Your task to perform on an android device: Go to ESPN.com Image 0: 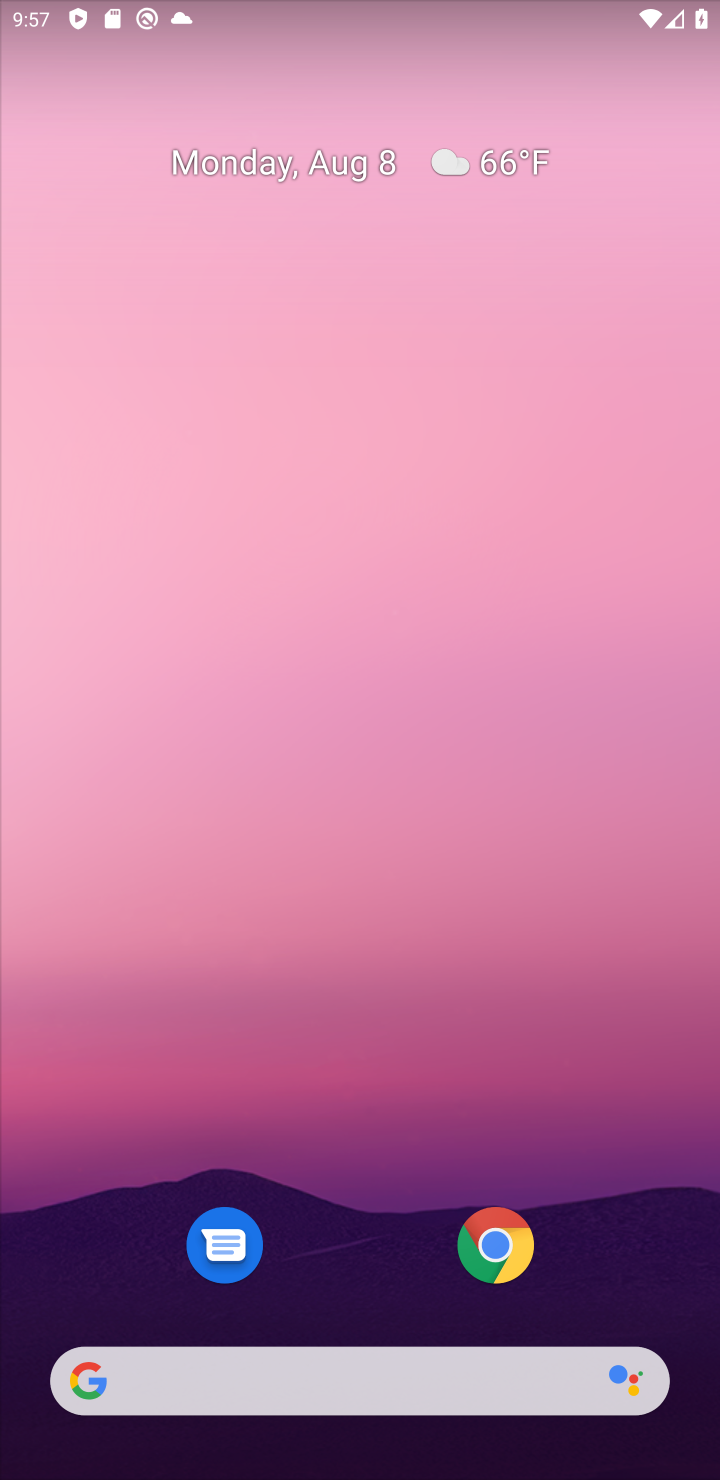
Step 0: click (490, 1249)
Your task to perform on an android device: Go to ESPN.com Image 1: 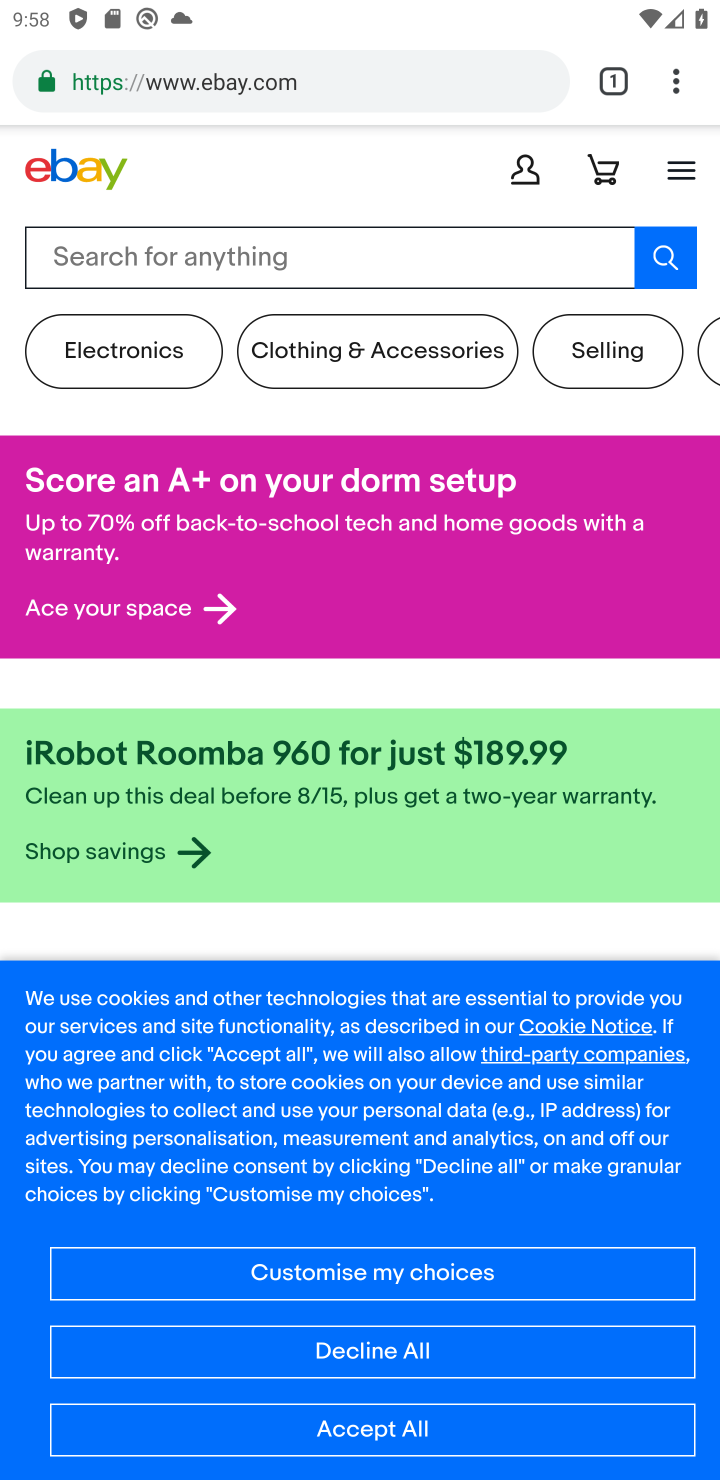
Step 1: click (680, 84)
Your task to perform on an android device: Go to ESPN.com Image 2: 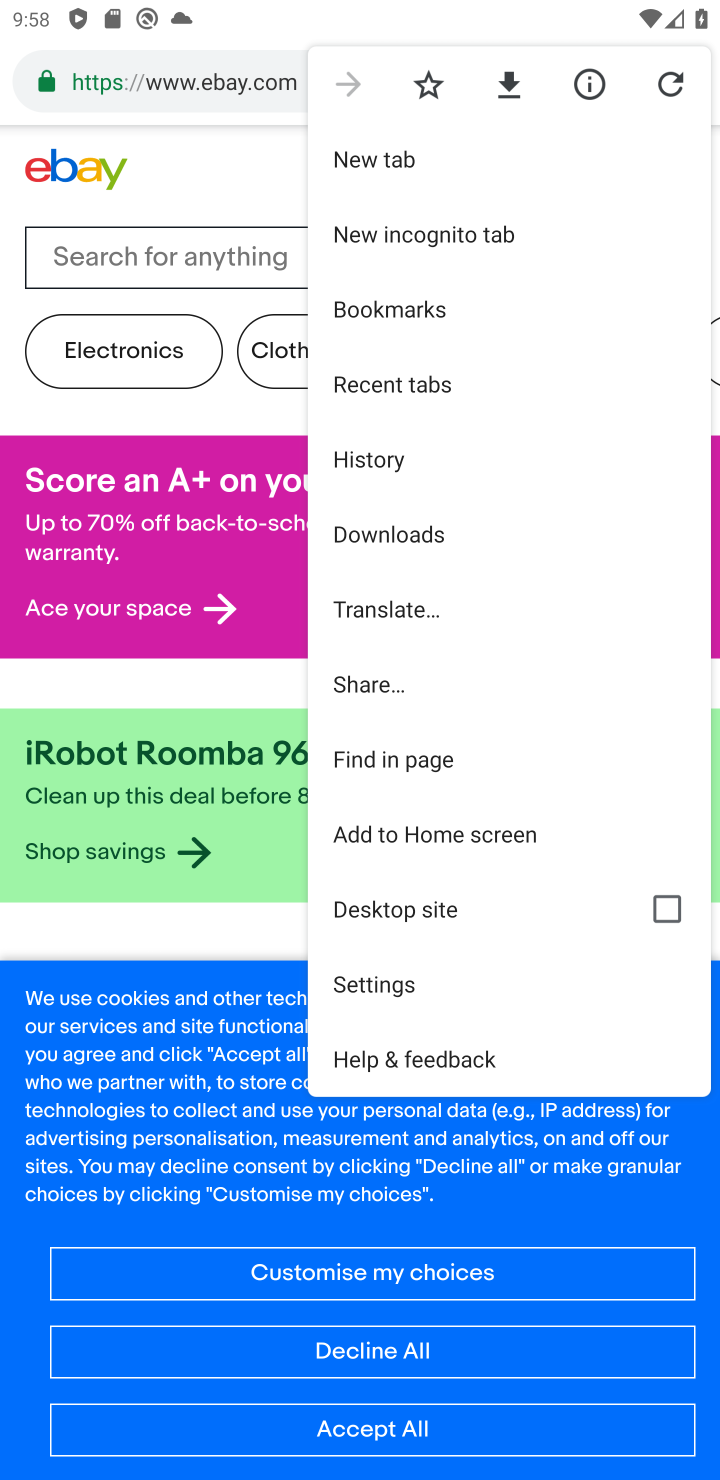
Step 2: click (387, 164)
Your task to perform on an android device: Go to ESPN.com Image 3: 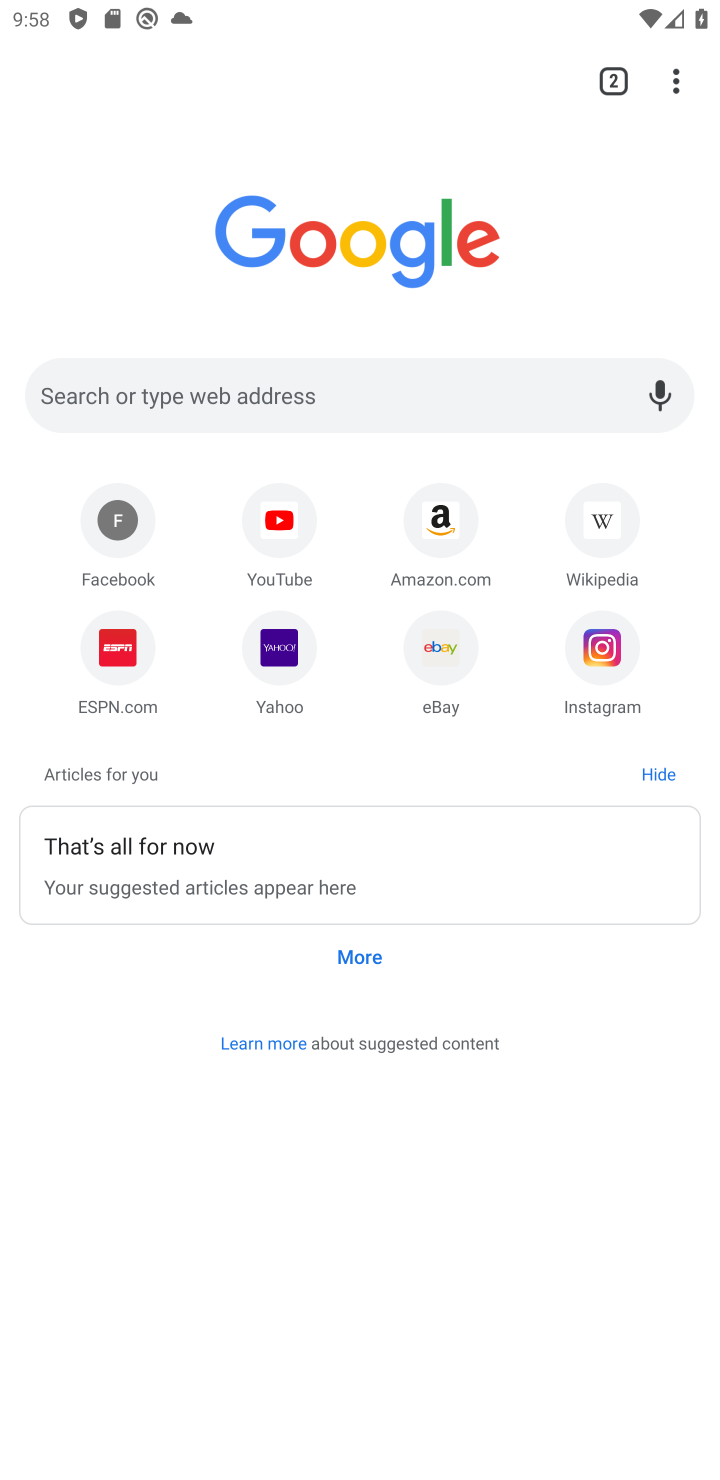
Step 3: click (100, 642)
Your task to perform on an android device: Go to ESPN.com Image 4: 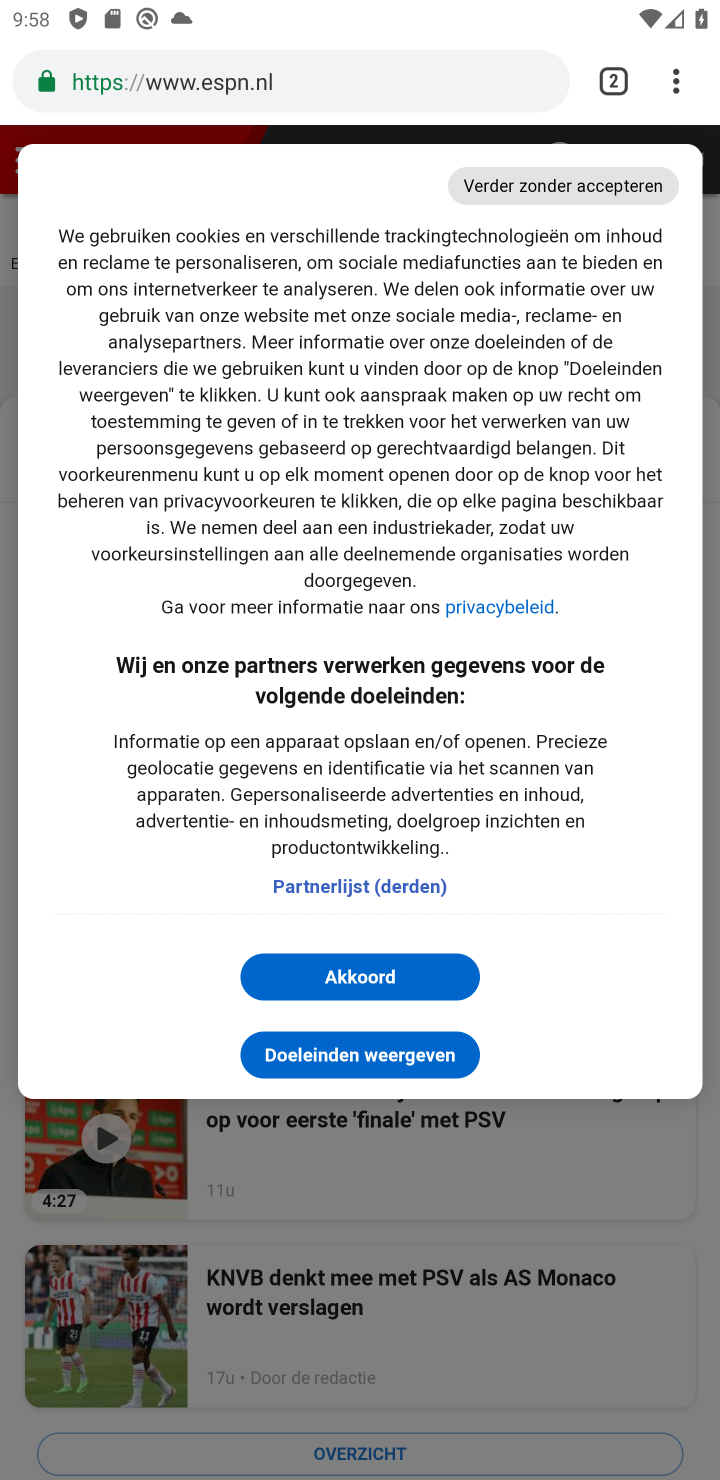
Step 4: click (360, 970)
Your task to perform on an android device: Go to ESPN.com Image 5: 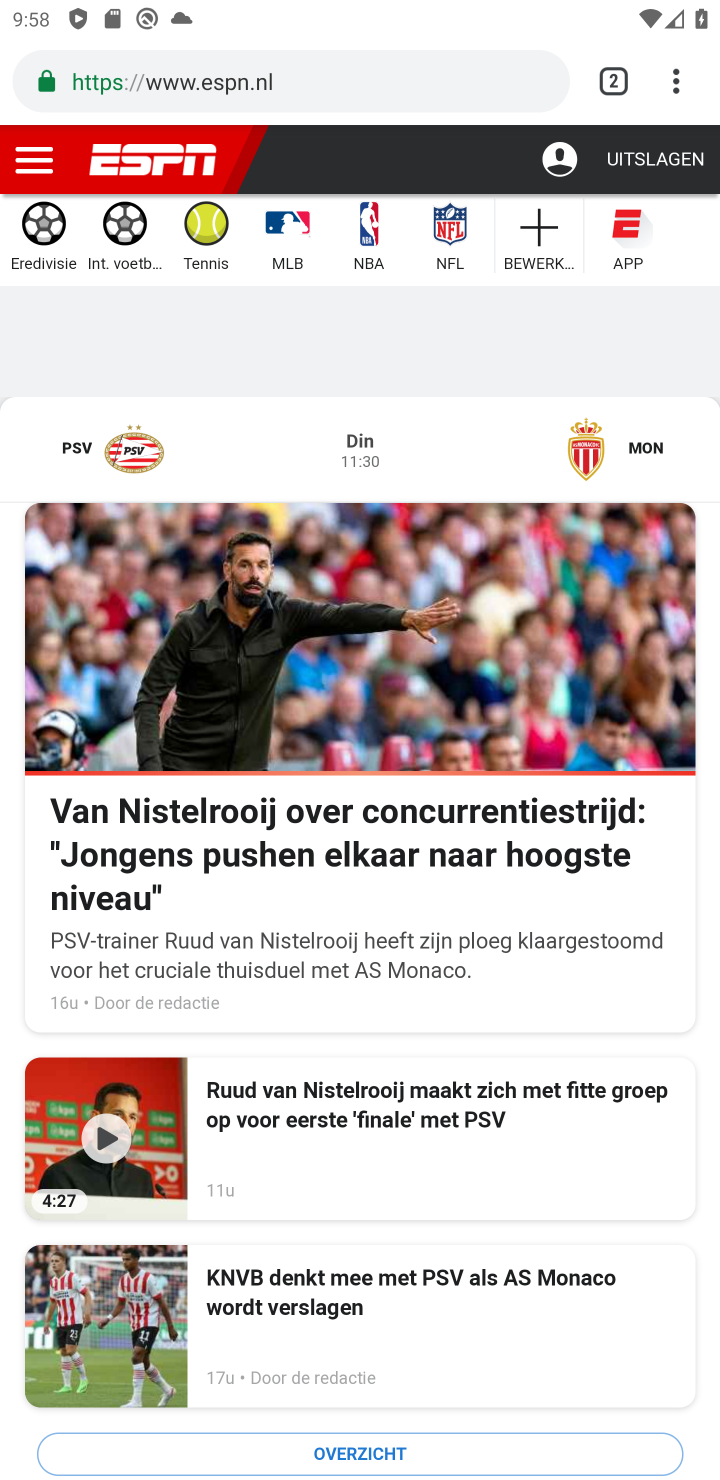
Step 5: task complete